Your task to perform on an android device: uninstall "Adobe Acrobat Reader: Edit PDF" Image 0: 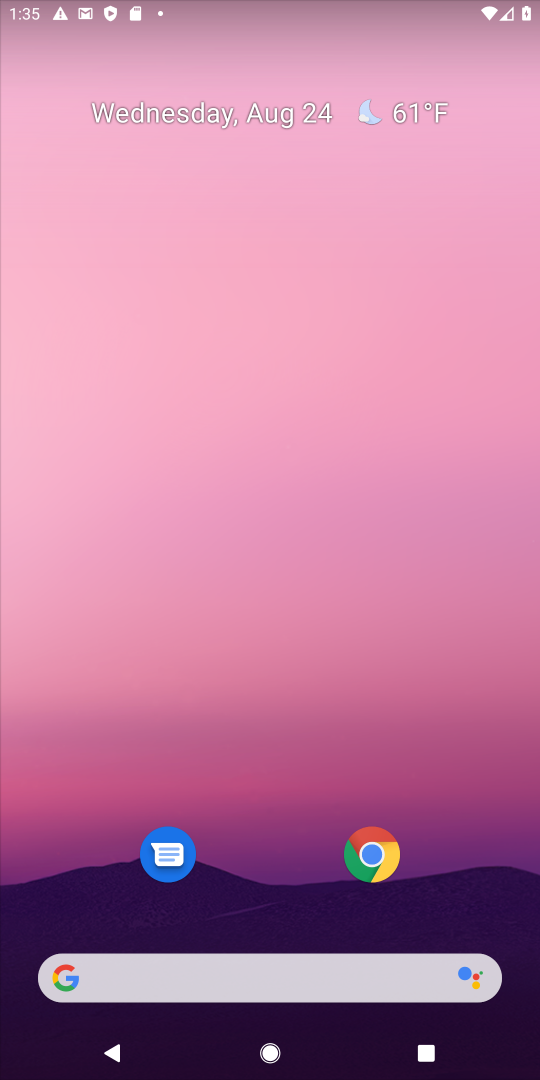
Step 0: drag from (472, 922) to (457, 98)
Your task to perform on an android device: uninstall "Adobe Acrobat Reader: Edit PDF" Image 1: 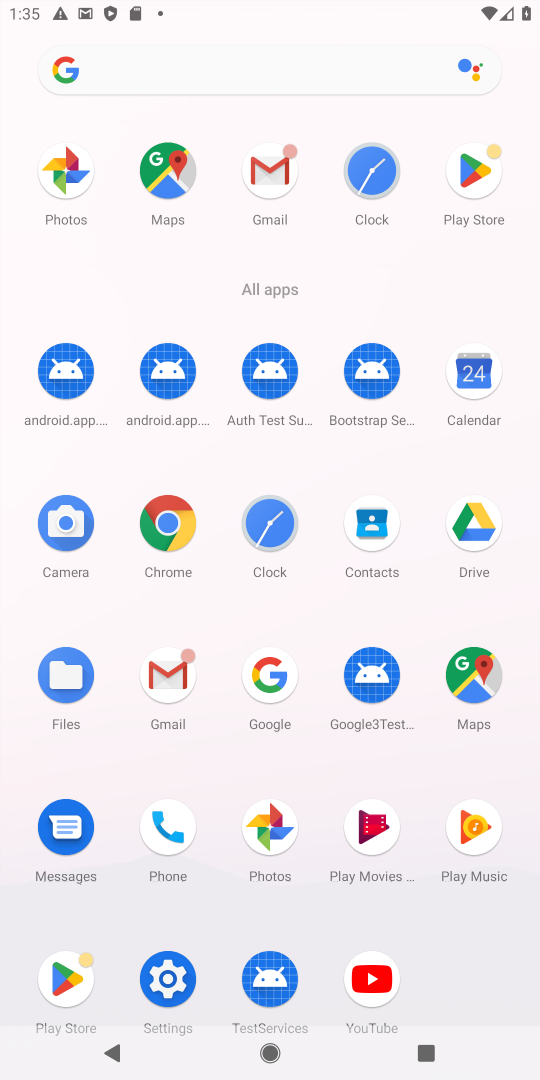
Step 1: click (482, 168)
Your task to perform on an android device: uninstall "Adobe Acrobat Reader: Edit PDF" Image 2: 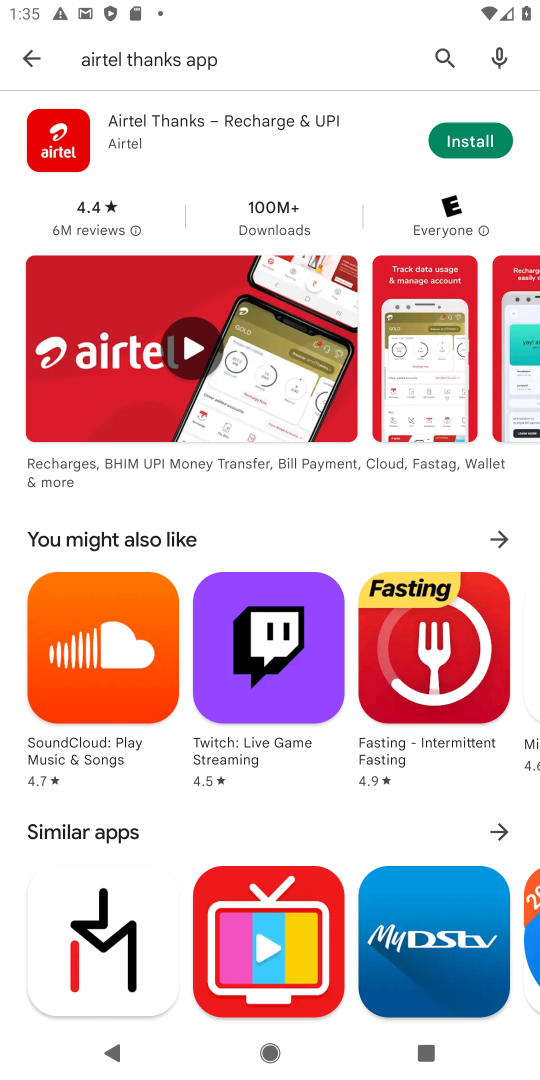
Step 2: press back button
Your task to perform on an android device: uninstall "Adobe Acrobat Reader: Edit PDF" Image 3: 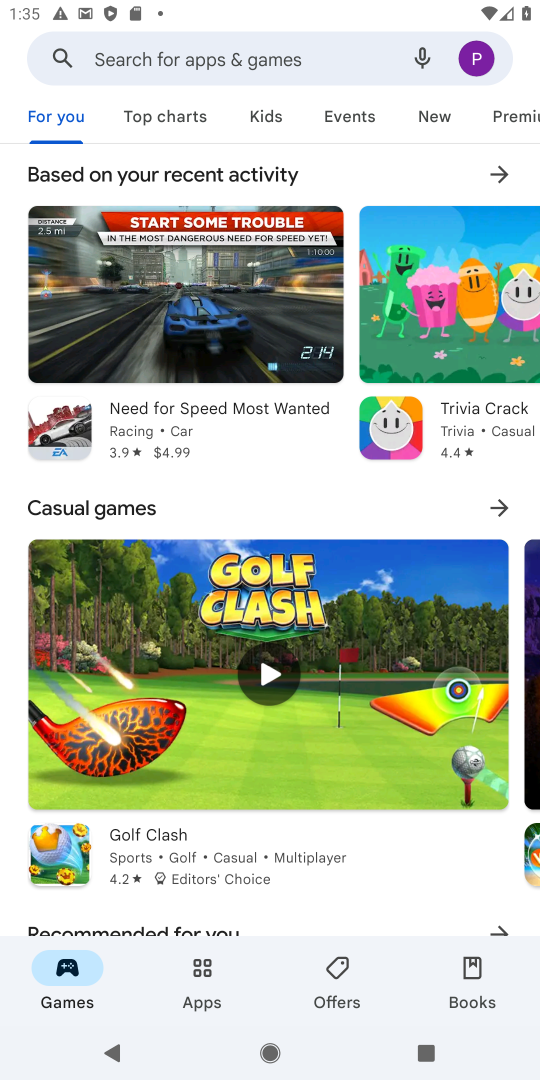
Step 3: click (266, 64)
Your task to perform on an android device: uninstall "Adobe Acrobat Reader: Edit PDF" Image 4: 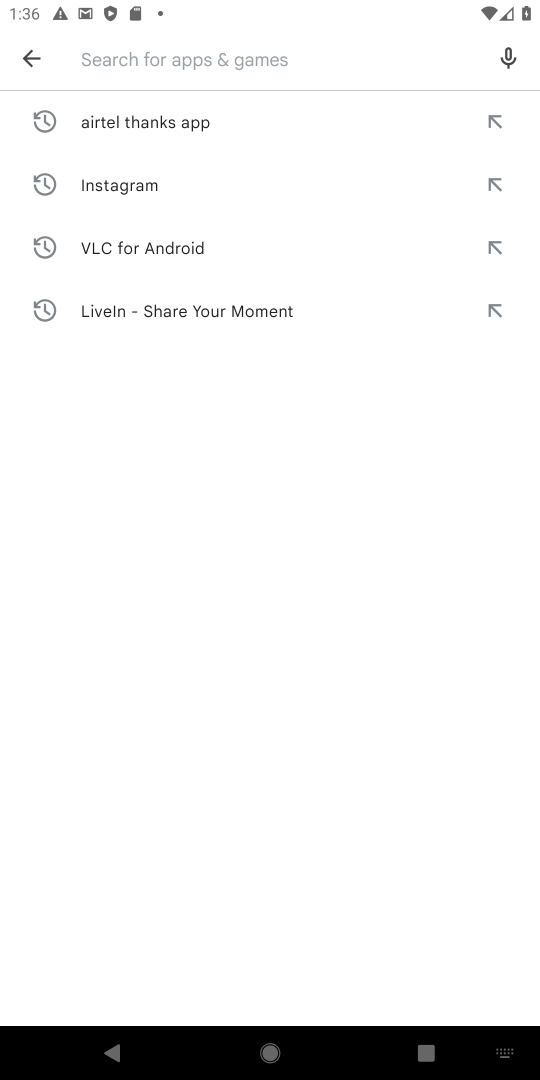
Step 4: type "Adobe Acrobat Reader: Edit PDF"
Your task to perform on an android device: uninstall "Adobe Acrobat Reader: Edit PDF" Image 5: 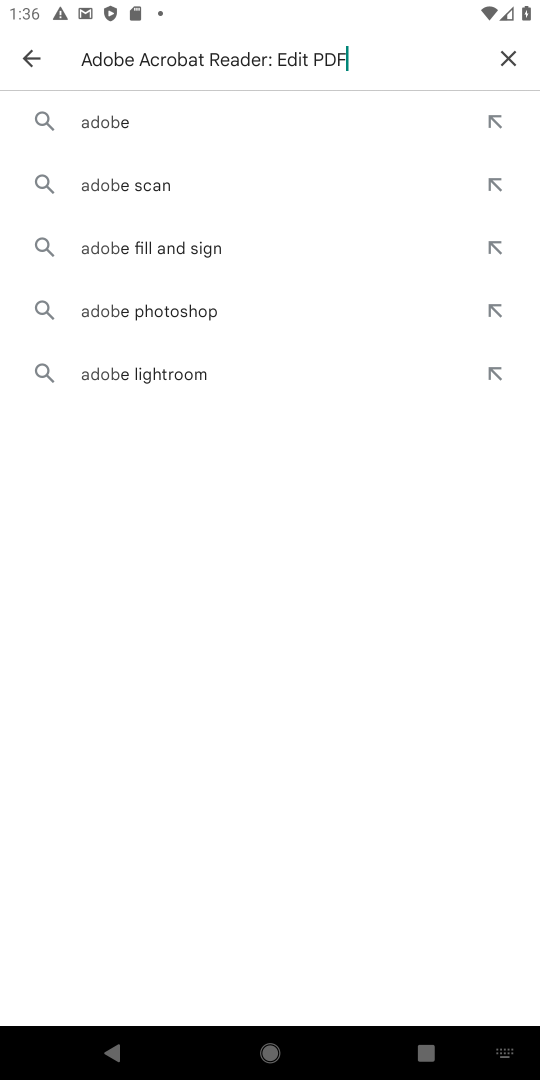
Step 5: press enter
Your task to perform on an android device: uninstall "Adobe Acrobat Reader: Edit PDF" Image 6: 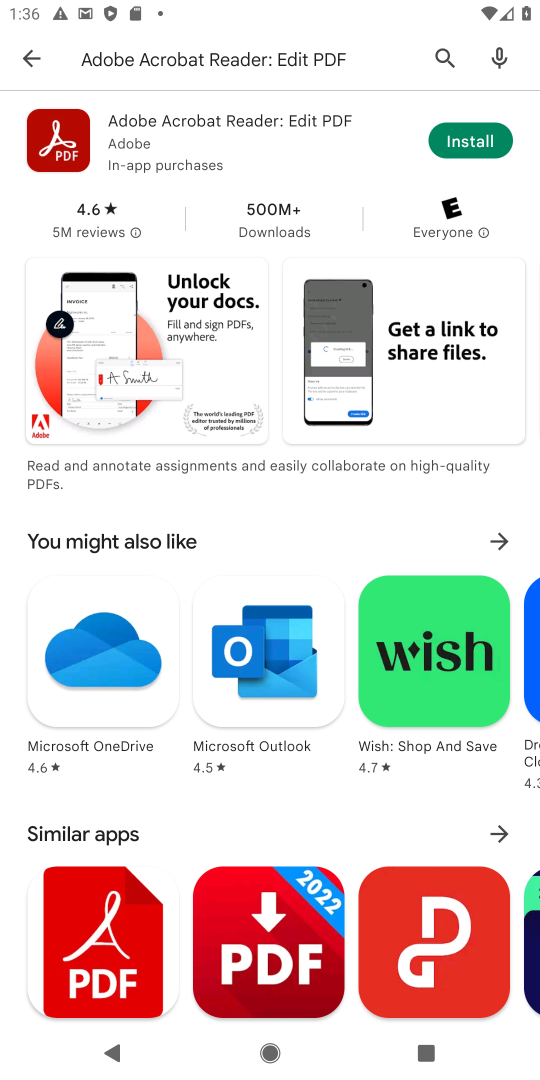
Step 6: task complete